Your task to perform on an android device: set an alarm Image 0: 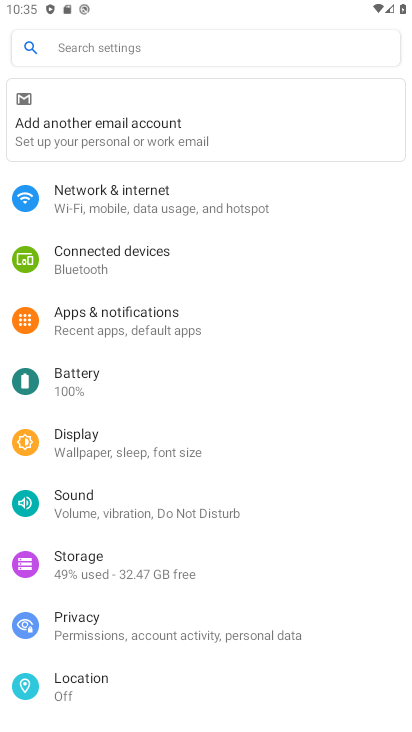
Step 0: press home button
Your task to perform on an android device: set an alarm Image 1: 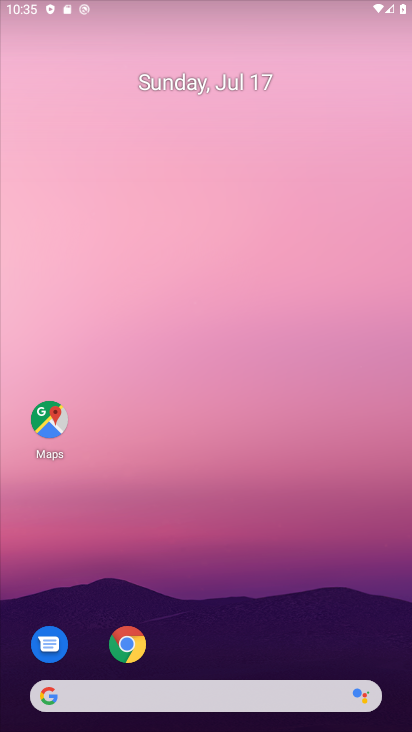
Step 1: drag from (257, 559) to (292, 1)
Your task to perform on an android device: set an alarm Image 2: 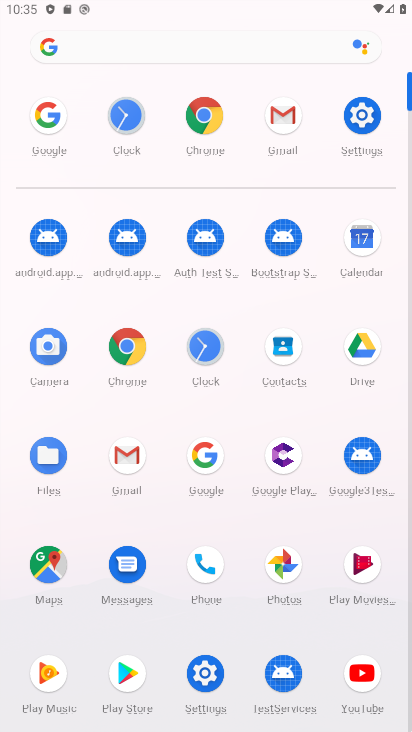
Step 2: click (121, 112)
Your task to perform on an android device: set an alarm Image 3: 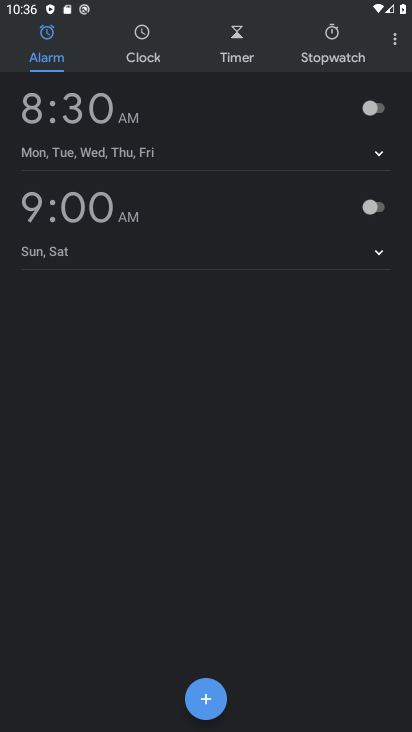
Step 3: click (370, 116)
Your task to perform on an android device: set an alarm Image 4: 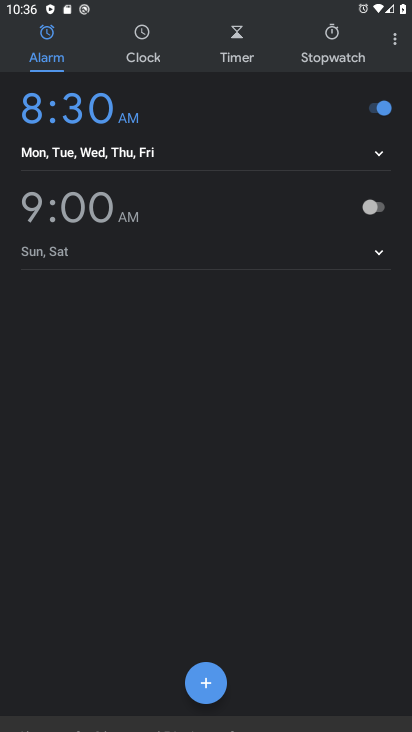
Step 4: task complete